Your task to perform on an android device: Do I have any events this weekend? Image 0: 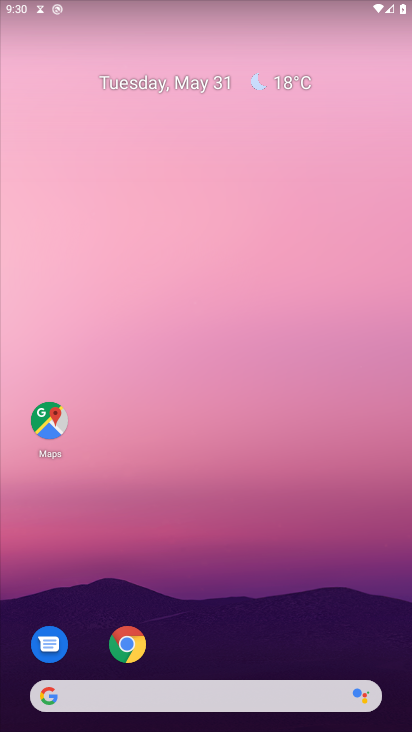
Step 0: press home button
Your task to perform on an android device: Do I have any events this weekend? Image 1: 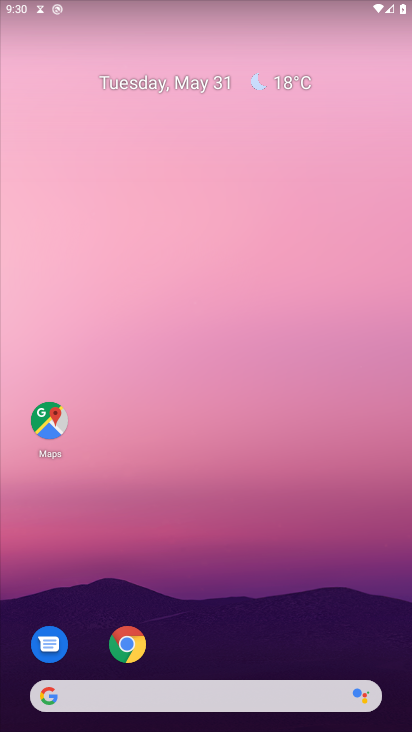
Step 1: drag from (212, 665) to (245, 96)
Your task to perform on an android device: Do I have any events this weekend? Image 2: 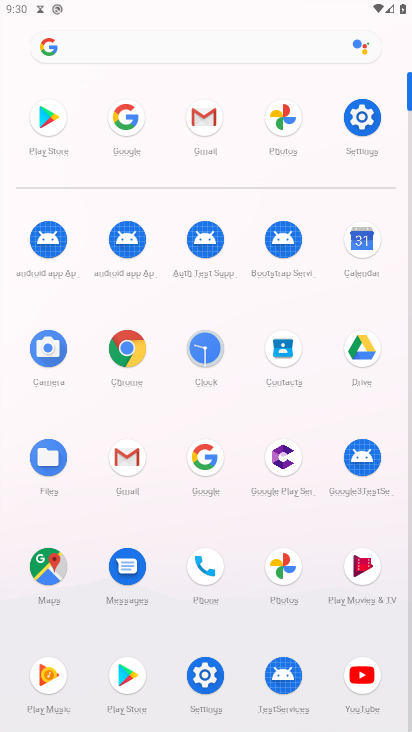
Step 2: click (362, 236)
Your task to perform on an android device: Do I have any events this weekend? Image 3: 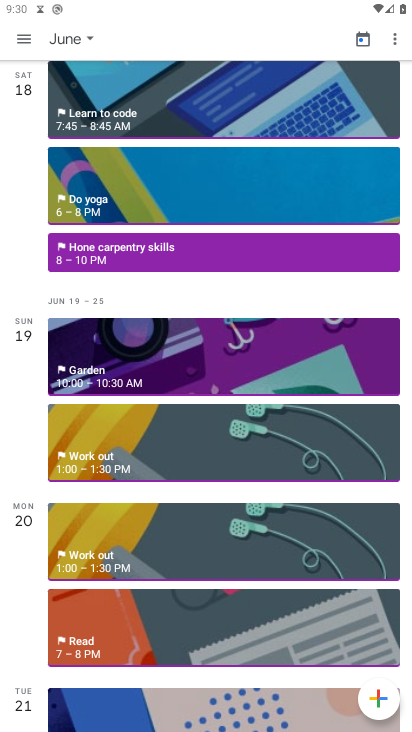
Step 3: click (87, 41)
Your task to perform on an android device: Do I have any events this weekend? Image 4: 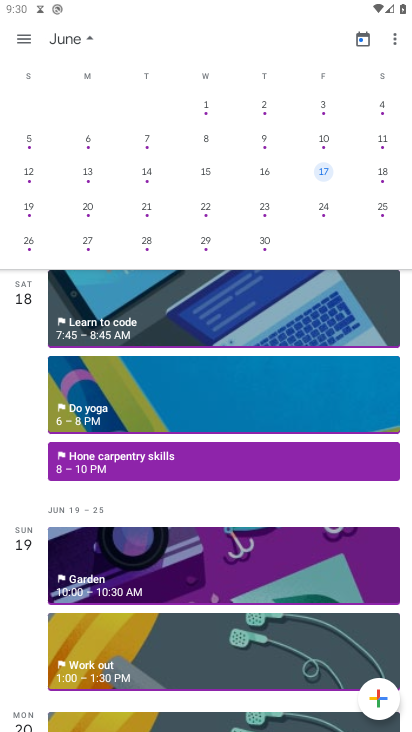
Step 4: drag from (29, 175) to (410, 169)
Your task to perform on an android device: Do I have any events this weekend? Image 5: 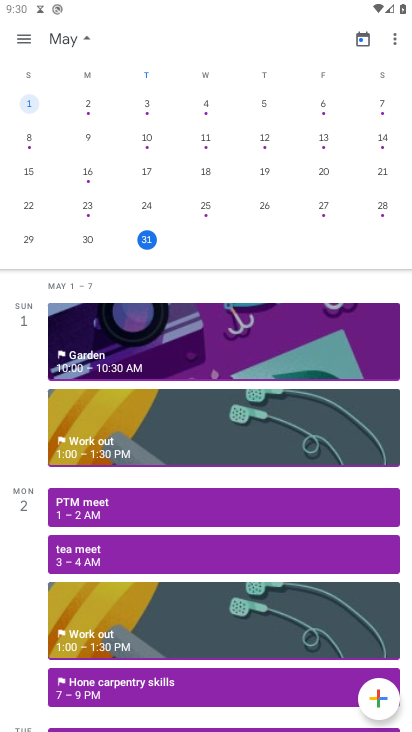
Step 5: click (150, 235)
Your task to perform on an android device: Do I have any events this weekend? Image 6: 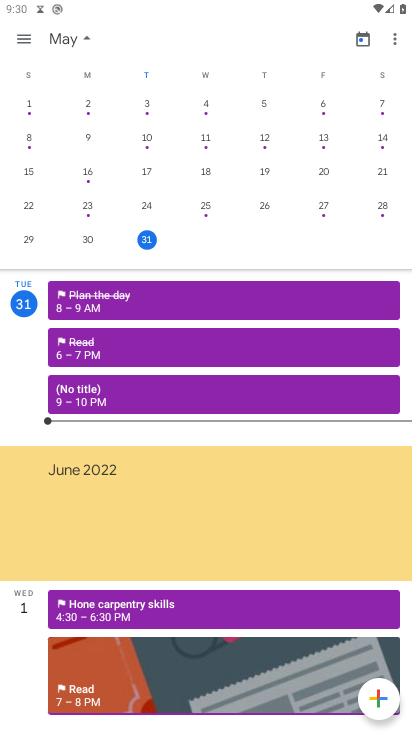
Step 6: click (83, 35)
Your task to perform on an android device: Do I have any events this weekend? Image 7: 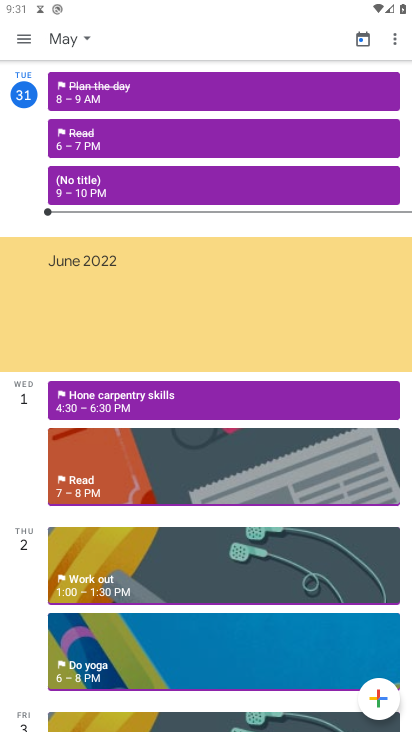
Step 7: drag from (22, 474) to (68, 84)
Your task to perform on an android device: Do I have any events this weekend? Image 8: 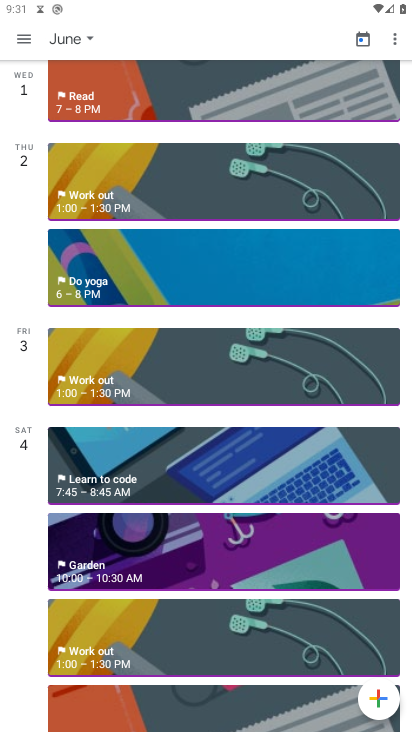
Step 8: click (14, 27)
Your task to perform on an android device: Do I have any events this weekend? Image 9: 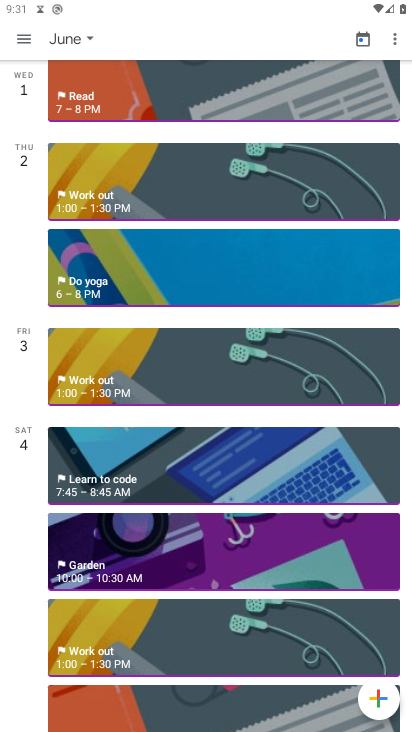
Step 9: task complete